Your task to perform on an android device: turn on location history Image 0: 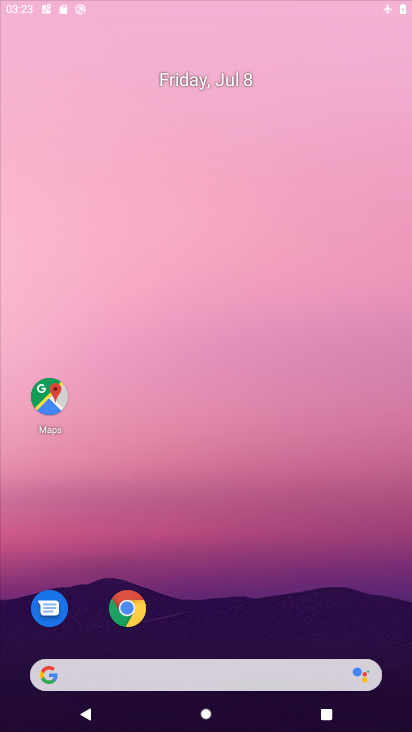
Step 0: drag from (240, 621) to (205, 314)
Your task to perform on an android device: turn on location history Image 1: 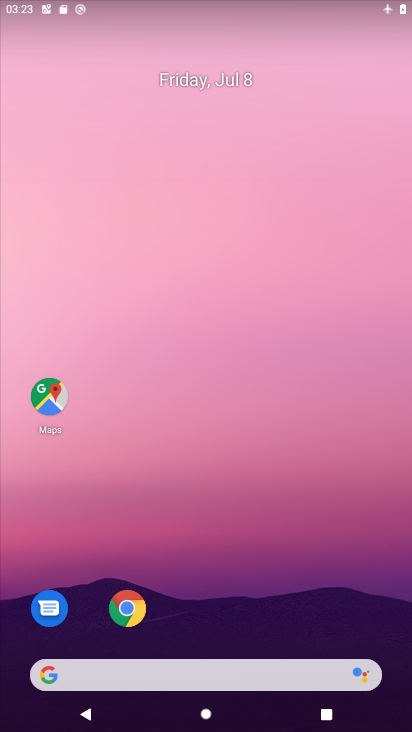
Step 1: drag from (216, 659) to (187, 322)
Your task to perform on an android device: turn on location history Image 2: 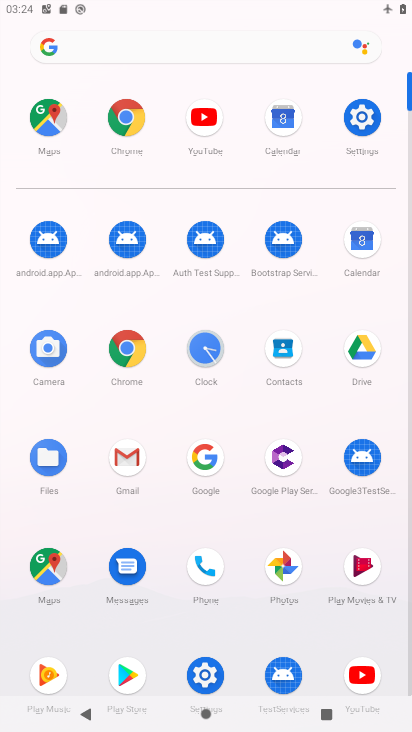
Step 2: click (373, 113)
Your task to perform on an android device: turn on location history Image 3: 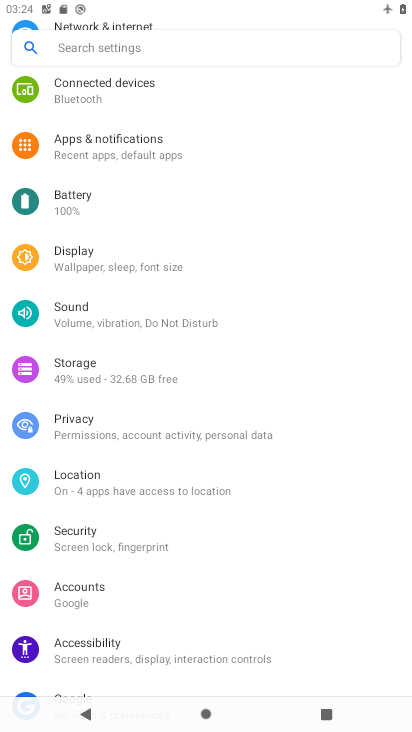
Step 3: click (112, 473)
Your task to perform on an android device: turn on location history Image 4: 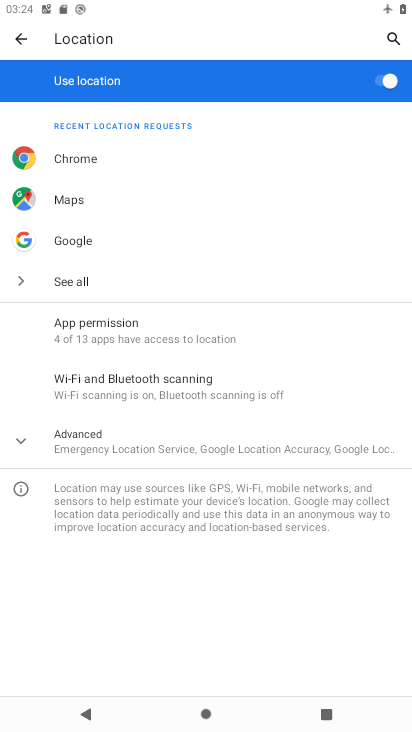
Step 4: click (154, 440)
Your task to perform on an android device: turn on location history Image 5: 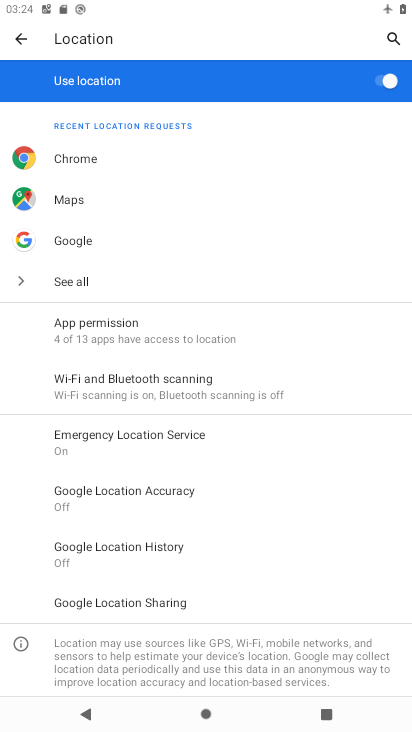
Step 5: click (160, 550)
Your task to perform on an android device: turn on location history Image 6: 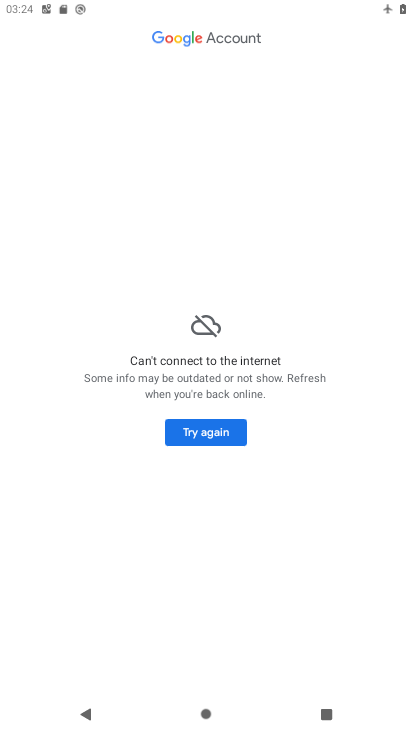
Step 6: task complete